Your task to perform on an android device: open app "Messenger Lite" (install if not already installed) and go to login screen Image 0: 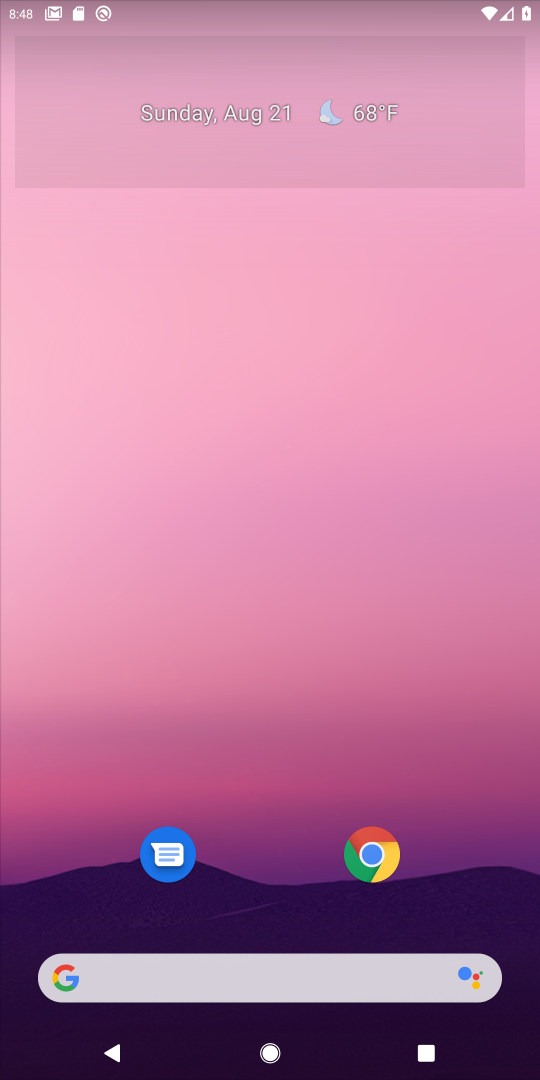
Step 0: task complete